Your task to perform on an android device: Check the news Image 0: 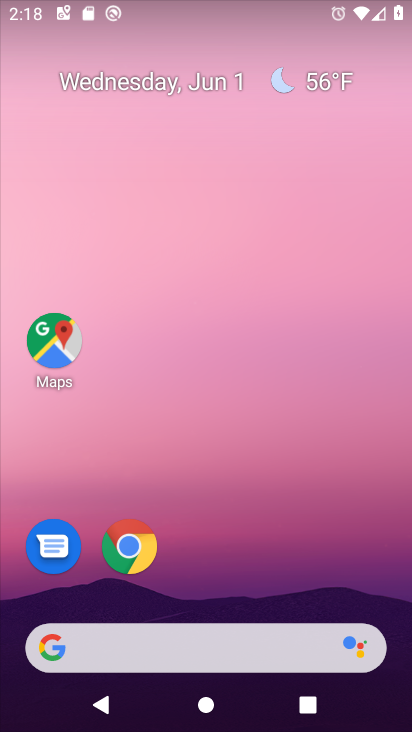
Step 0: click (264, 640)
Your task to perform on an android device: Check the news Image 1: 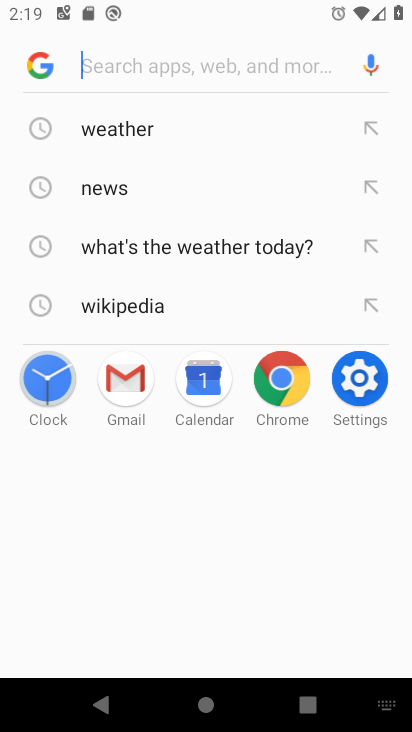
Step 1: click (110, 189)
Your task to perform on an android device: Check the news Image 2: 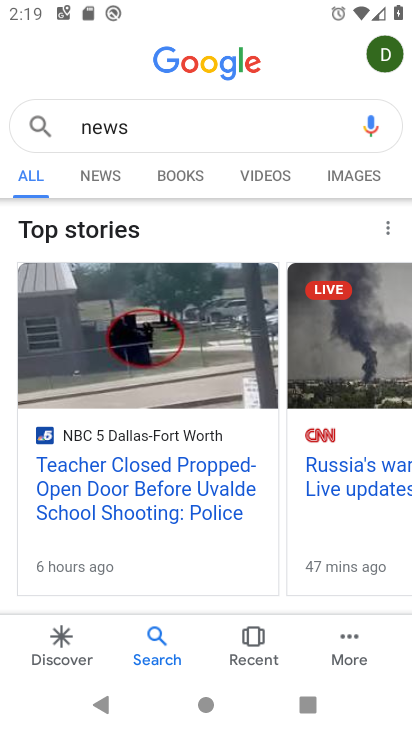
Step 2: task complete